Your task to perform on an android device: open device folders in google photos Image 0: 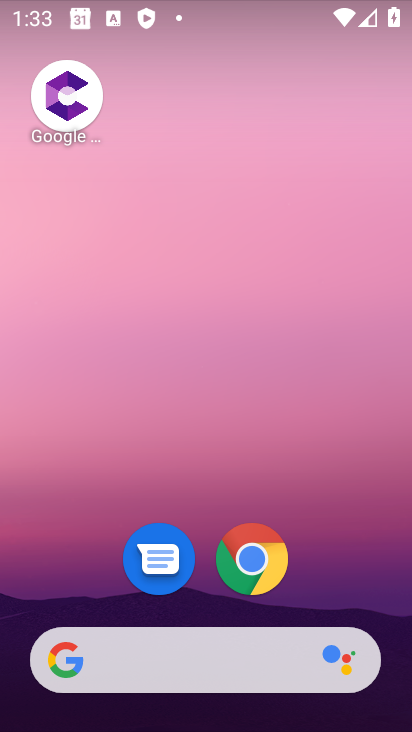
Step 0: drag from (15, 507) to (185, 234)
Your task to perform on an android device: open device folders in google photos Image 1: 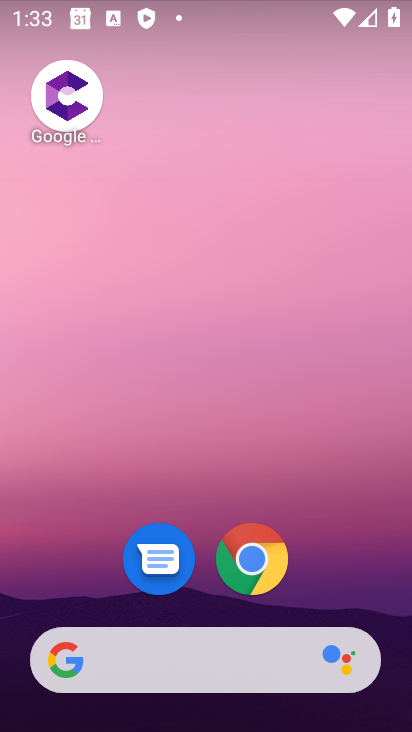
Step 1: drag from (3, 440) to (340, 232)
Your task to perform on an android device: open device folders in google photos Image 2: 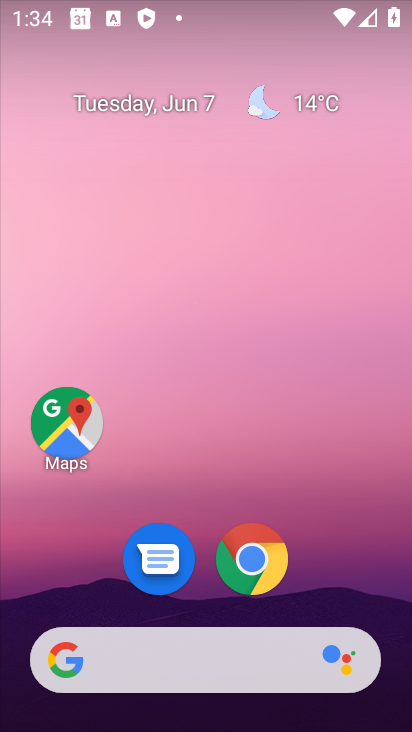
Step 2: drag from (13, 344) to (99, 190)
Your task to perform on an android device: open device folders in google photos Image 3: 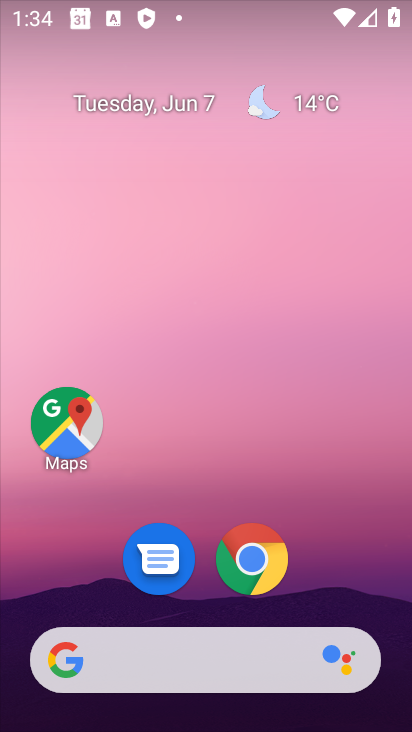
Step 3: drag from (36, 473) to (154, 189)
Your task to perform on an android device: open device folders in google photos Image 4: 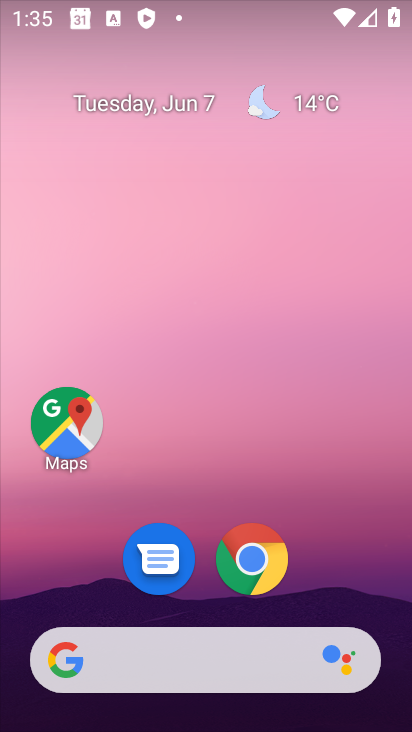
Step 4: drag from (13, 649) to (333, 217)
Your task to perform on an android device: open device folders in google photos Image 5: 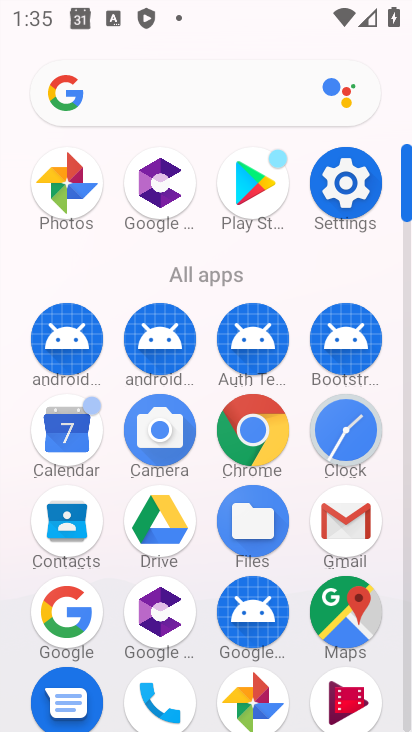
Step 5: click (248, 698)
Your task to perform on an android device: open device folders in google photos Image 6: 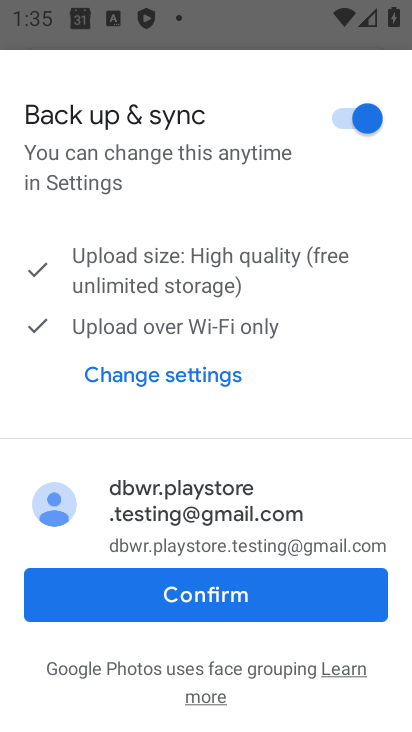
Step 6: click (237, 604)
Your task to perform on an android device: open device folders in google photos Image 7: 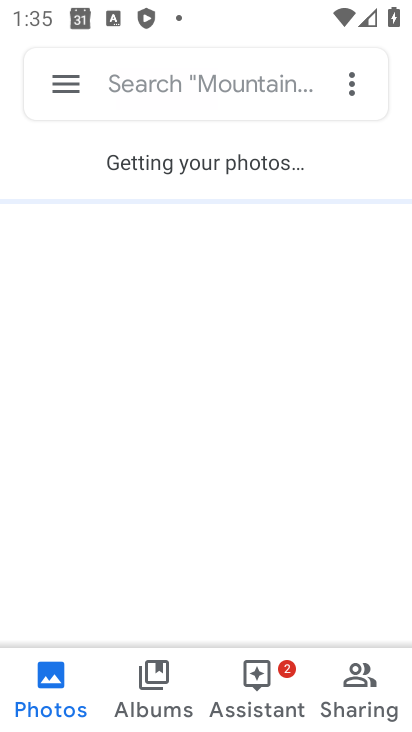
Step 7: click (60, 85)
Your task to perform on an android device: open device folders in google photos Image 8: 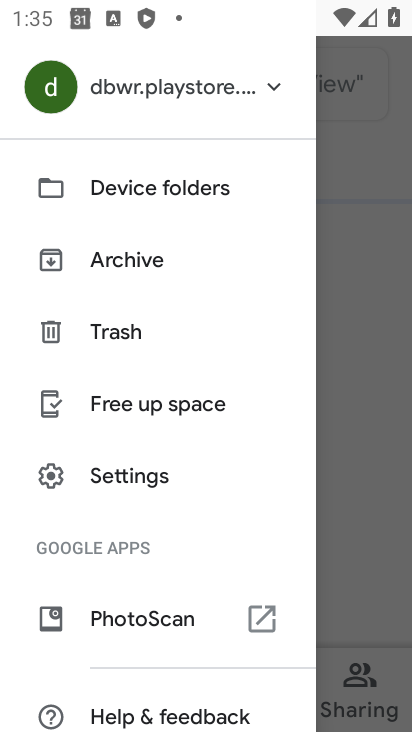
Step 8: click (74, 172)
Your task to perform on an android device: open device folders in google photos Image 9: 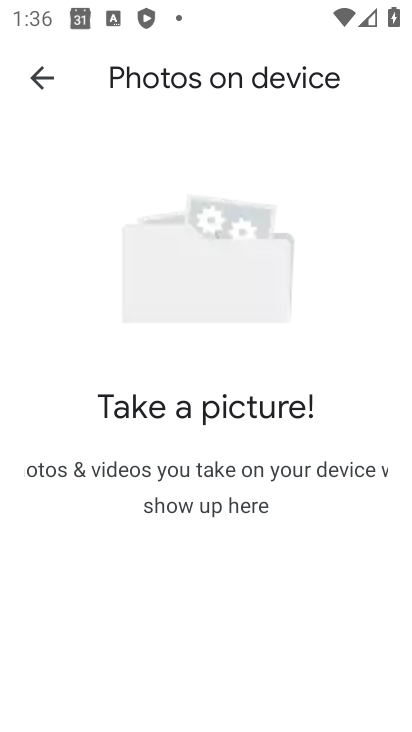
Step 9: task complete